Your task to perform on an android device: Open internet settings Image 0: 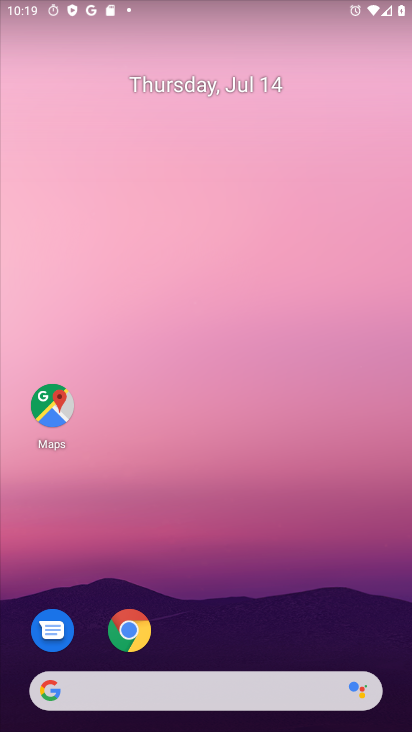
Step 0: drag from (64, 589) to (197, 262)
Your task to perform on an android device: Open internet settings Image 1: 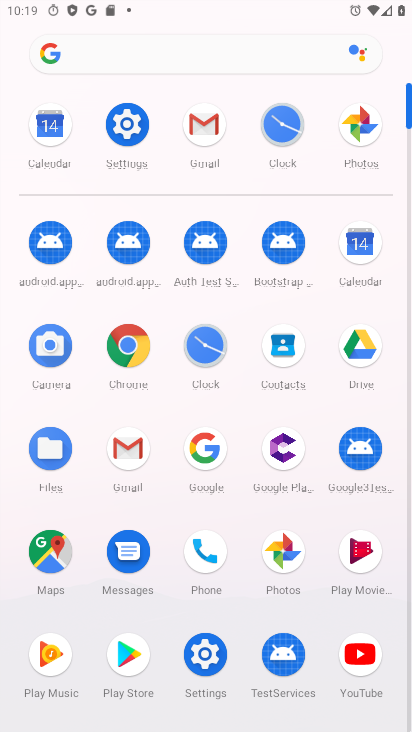
Step 1: click (193, 656)
Your task to perform on an android device: Open internet settings Image 2: 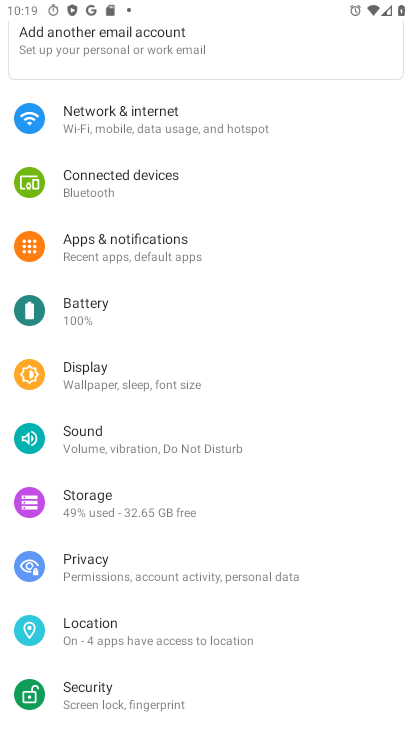
Step 2: click (103, 128)
Your task to perform on an android device: Open internet settings Image 3: 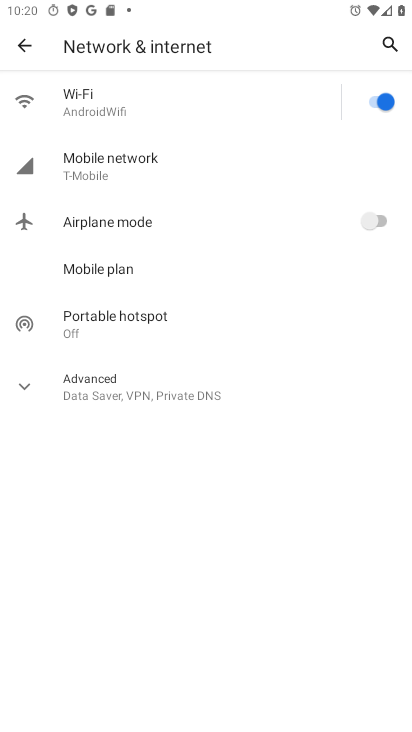
Step 3: task complete